Your task to perform on an android device: Open Youtube and go to "Your channel" Image 0: 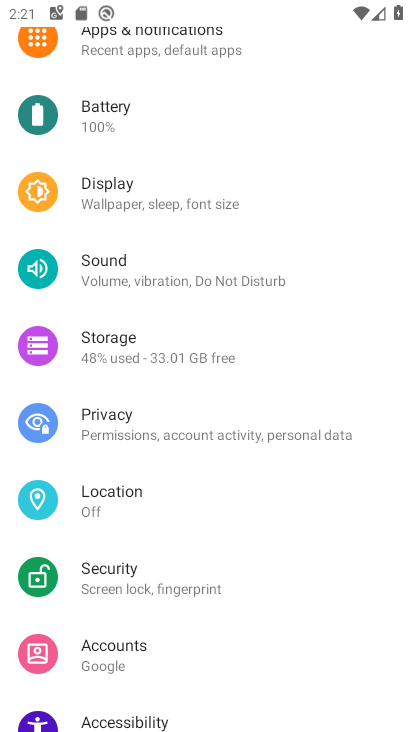
Step 0: press home button
Your task to perform on an android device: Open Youtube and go to "Your channel" Image 1: 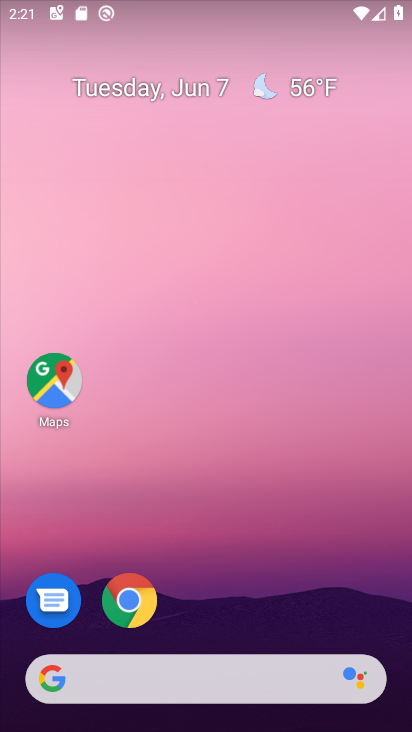
Step 1: drag from (268, 382) to (277, 5)
Your task to perform on an android device: Open Youtube and go to "Your channel" Image 2: 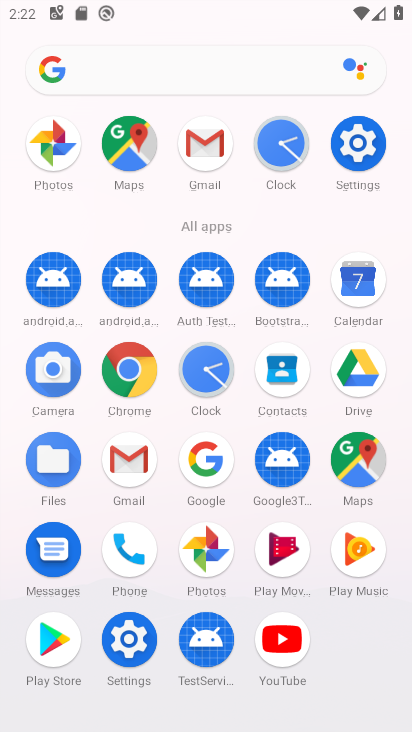
Step 2: click (282, 657)
Your task to perform on an android device: Open Youtube and go to "Your channel" Image 3: 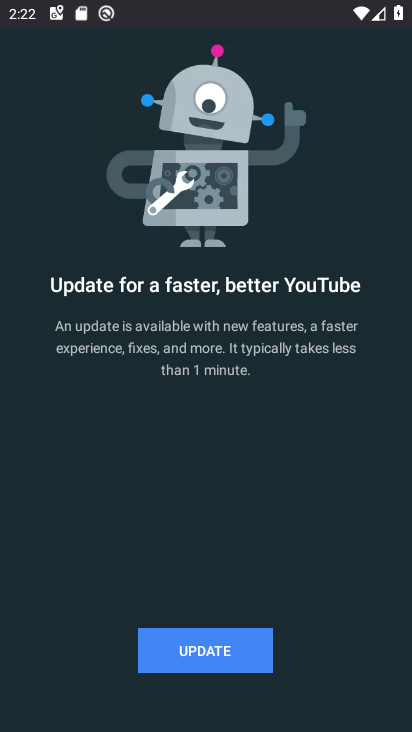
Step 3: click (198, 663)
Your task to perform on an android device: Open Youtube and go to "Your channel" Image 4: 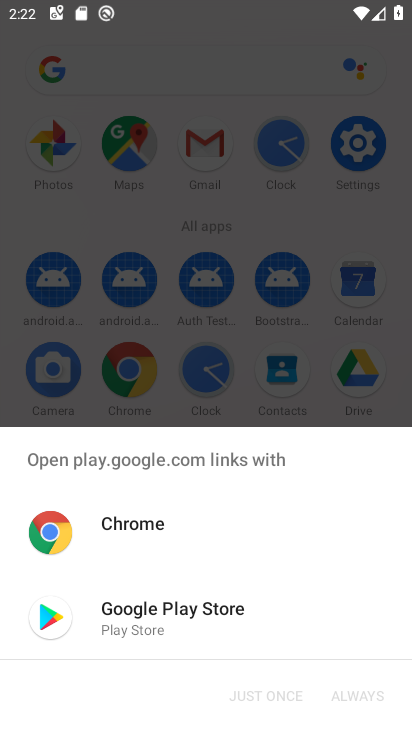
Step 4: click (150, 606)
Your task to perform on an android device: Open Youtube and go to "Your channel" Image 5: 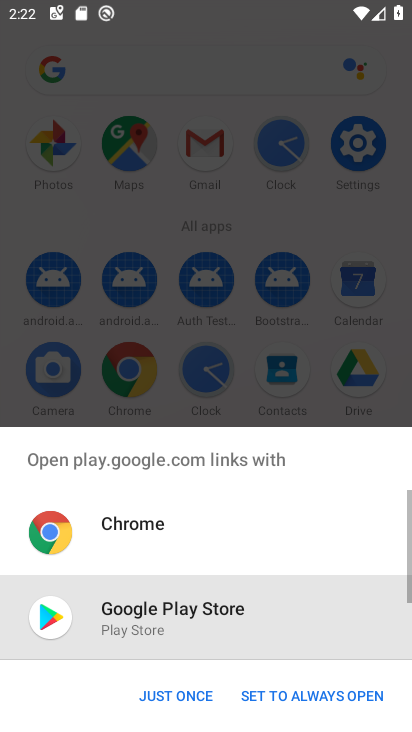
Step 5: click (175, 694)
Your task to perform on an android device: Open Youtube and go to "Your channel" Image 6: 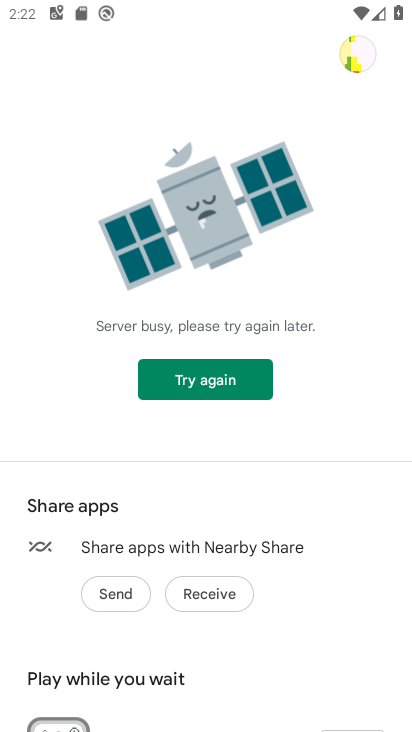
Step 6: click (221, 382)
Your task to perform on an android device: Open Youtube and go to "Your channel" Image 7: 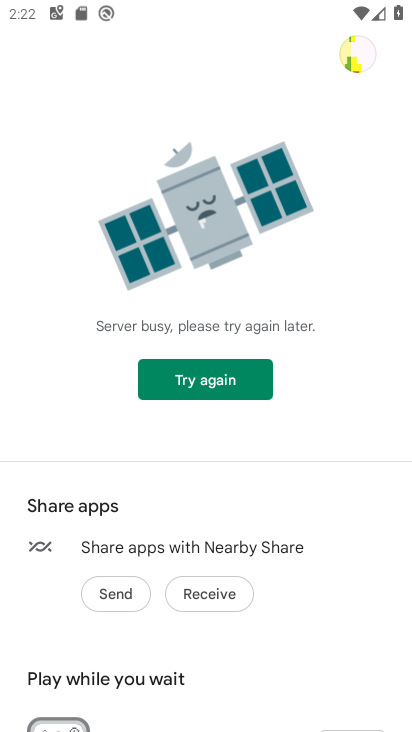
Step 7: click (218, 387)
Your task to perform on an android device: Open Youtube and go to "Your channel" Image 8: 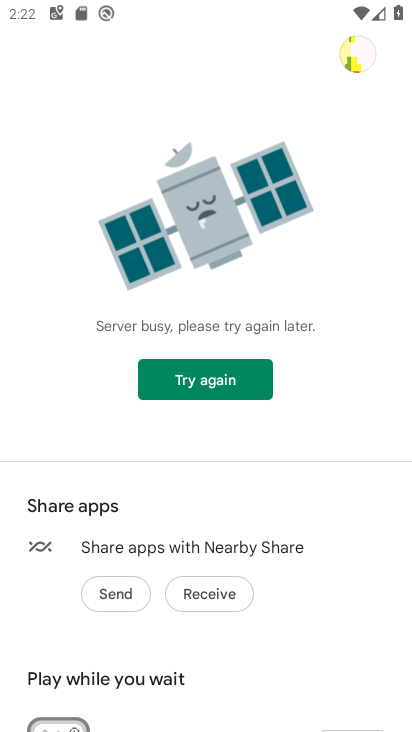
Step 8: task complete